Your task to perform on an android device: turn off wifi Image 0: 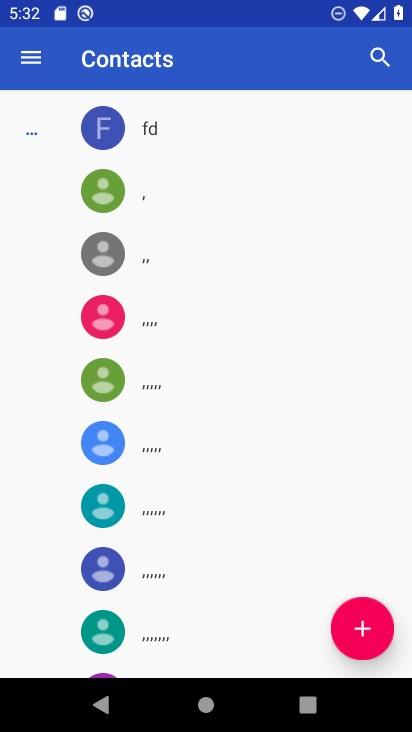
Step 0: press home button
Your task to perform on an android device: turn off wifi Image 1: 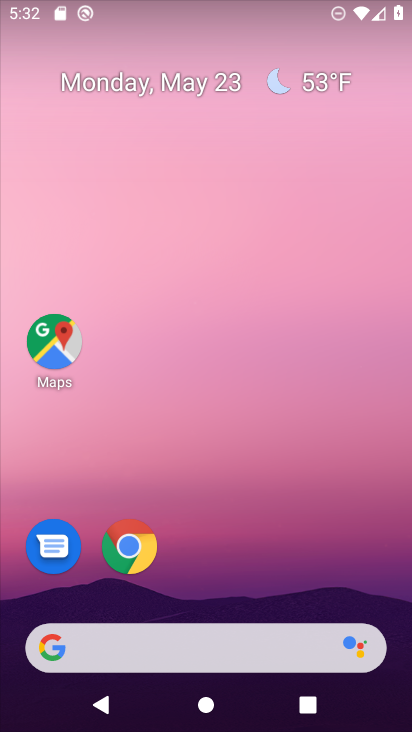
Step 1: drag from (261, 603) to (267, 129)
Your task to perform on an android device: turn off wifi Image 2: 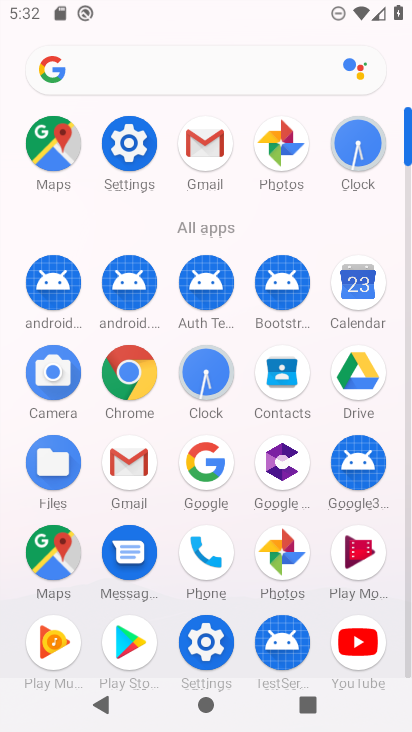
Step 2: click (137, 144)
Your task to perform on an android device: turn off wifi Image 3: 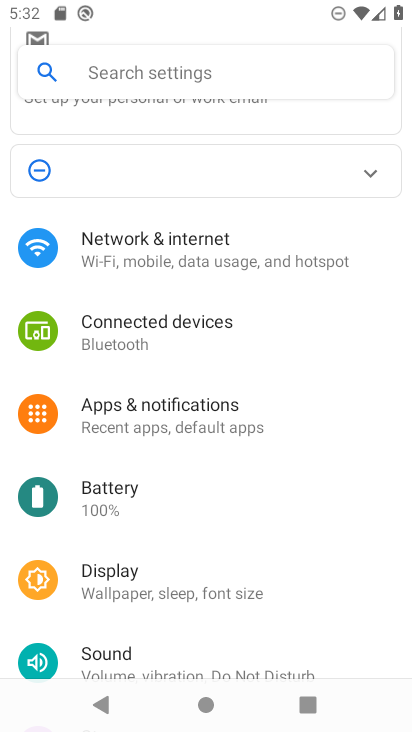
Step 3: click (204, 257)
Your task to perform on an android device: turn off wifi Image 4: 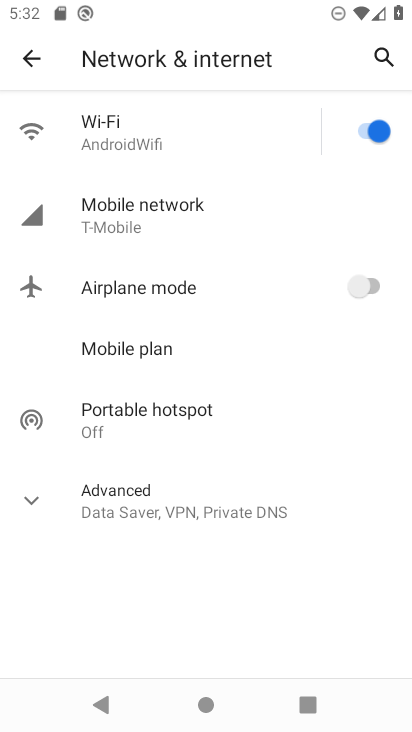
Step 4: task complete